Your task to perform on an android device: What's the weather? Image 0: 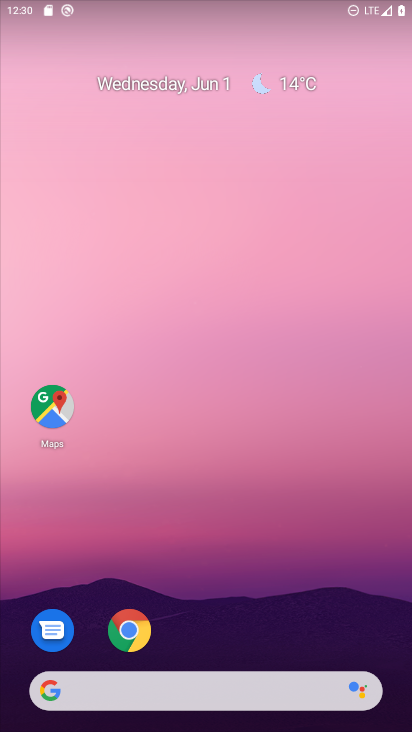
Step 0: click (299, 84)
Your task to perform on an android device: What's the weather? Image 1: 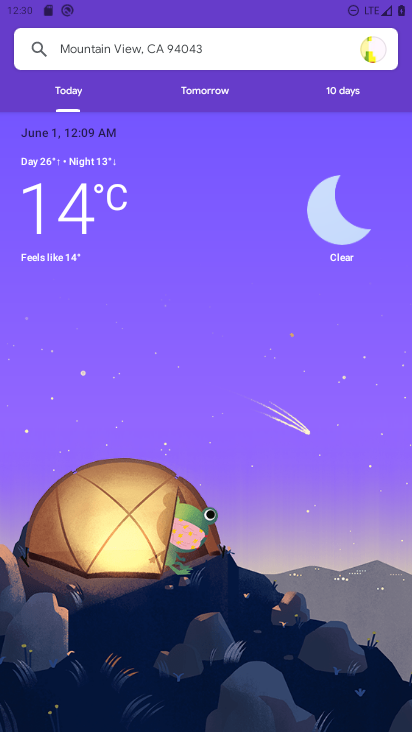
Step 1: task complete